Your task to perform on an android device: Open eBay Image 0: 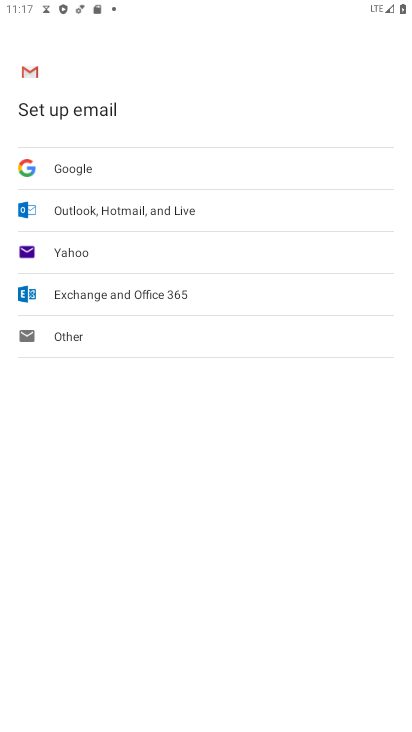
Step 0: press back button
Your task to perform on an android device: Open eBay Image 1: 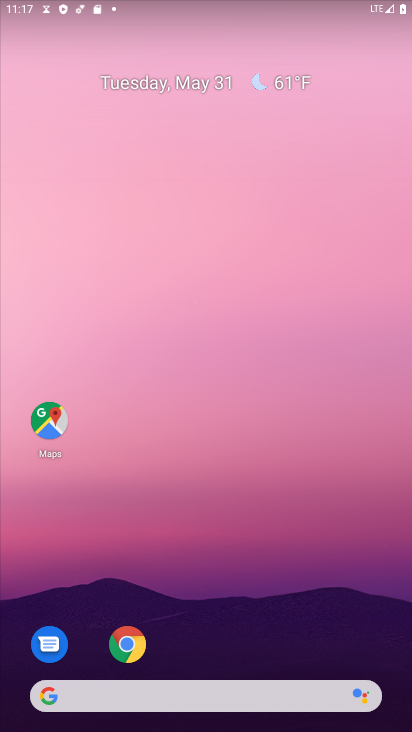
Step 1: click (130, 632)
Your task to perform on an android device: Open eBay Image 2: 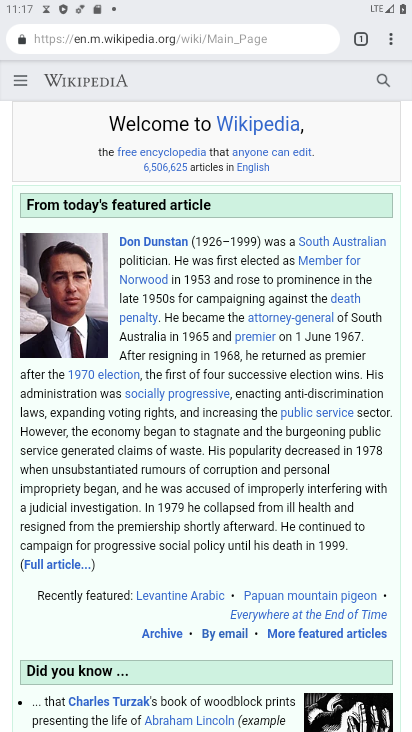
Step 2: click (360, 38)
Your task to perform on an android device: Open eBay Image 3: 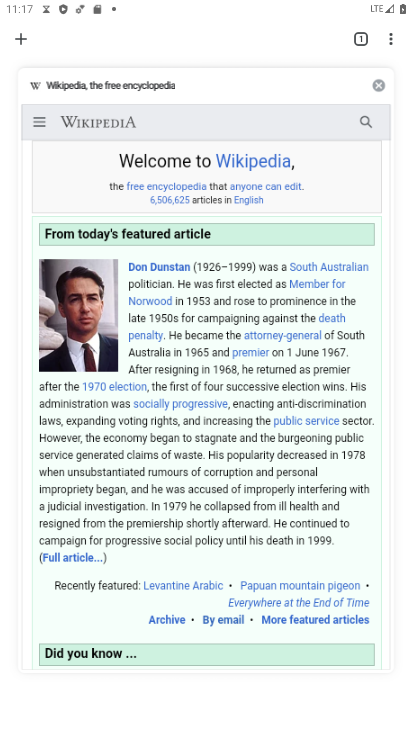
Step 3: click (21, 41)
Your task to perform on an android device: Open eBay Image 4: 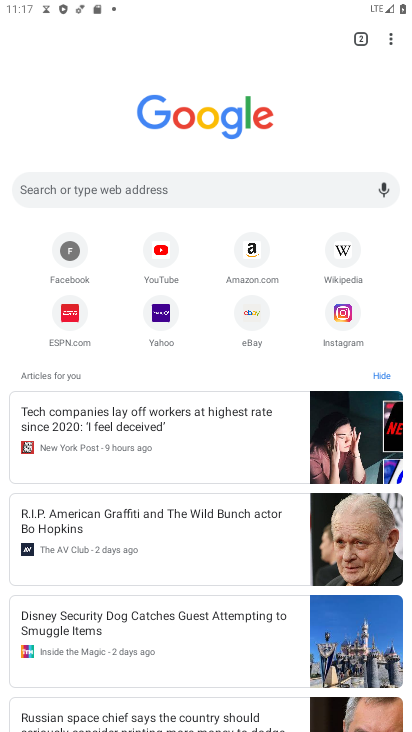
Step 4: click (243, 310)
Your task to perform on an android device: Open eBay Image 5: 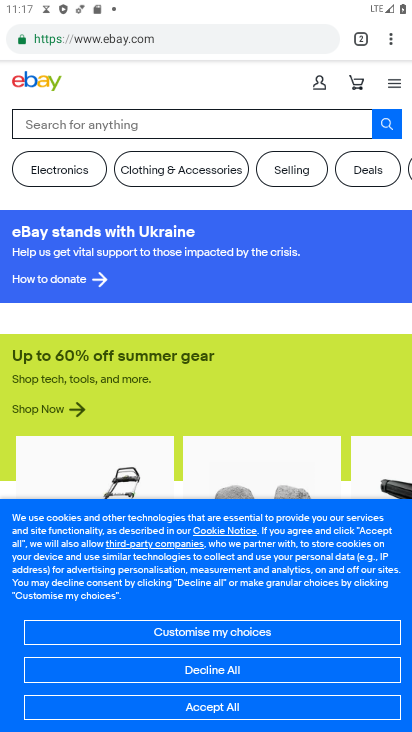
Step 5: task complete